Your task to perform on an android device: Open notification settings Image 0: 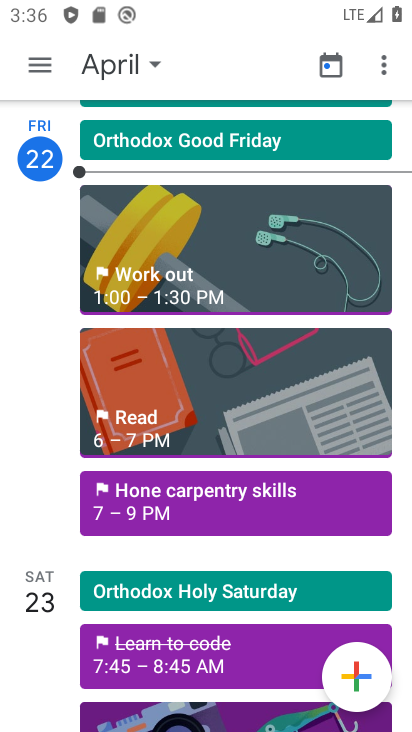
Step 0: press home button
Your task to perform on an android device: Open notification settings Image 1: 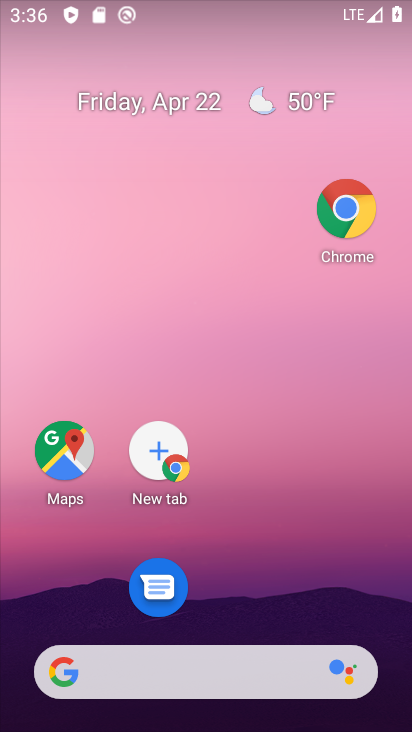
Step 1: drag from (233, 611) to (284, 50)
Your task to perform on an android device: Open notification settings Image 2: 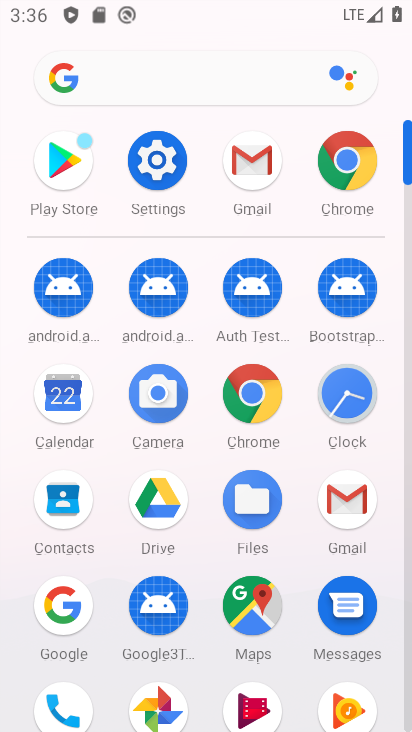
Step 2: click (155, 160)
Your task to perform on an android device: Open notification settings Image 3: 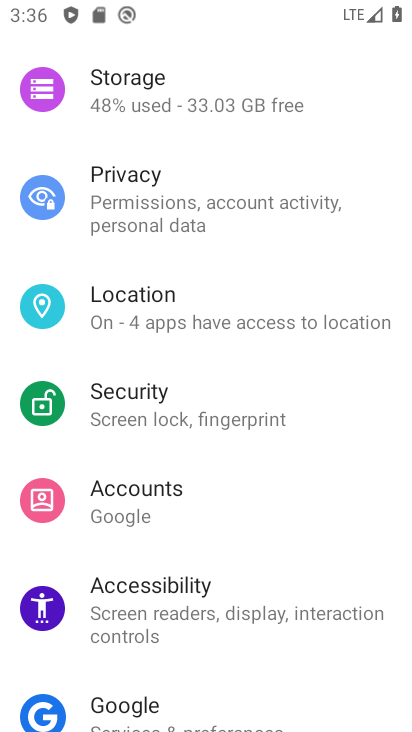
Step 3: drag from (147, 228) to (185, 624)
Your task to perform on an android device: Open notification settings Image 4: 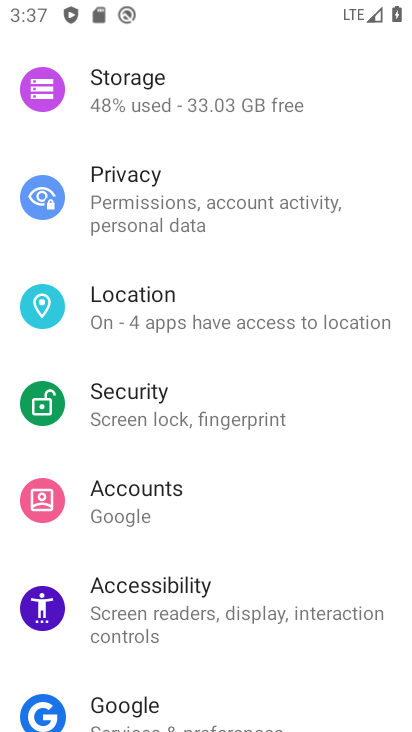
Step 4: drag from (194, 131) to (155, 621)
Your task to perform on an android device: Open notification settings Image 5: 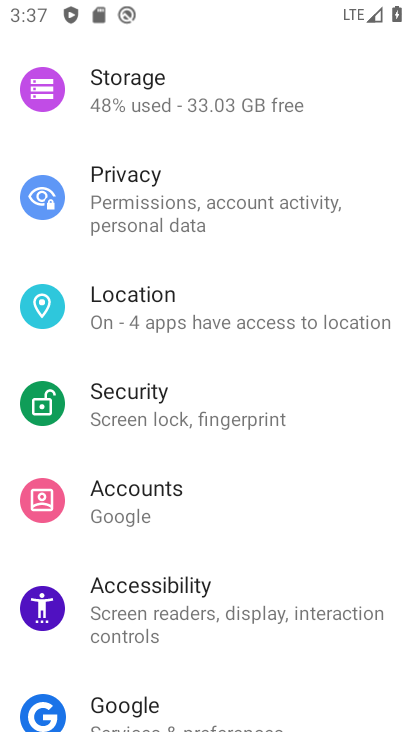
Step 5: drag from (256, 137) to (269, 604)
Your task to perform on an android device: Open notification settings Image 6: 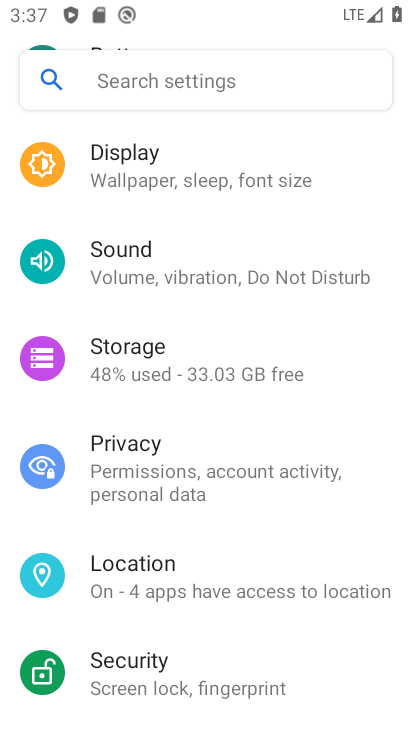
Step 6: drag from (218, 156) to (179, 675)
Your task to perform on an android device: Open notification settings Image 7: 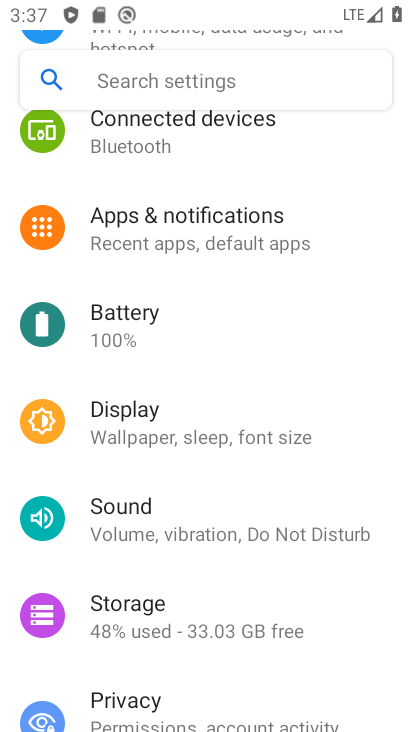
Step 7: click (156, 222)
Your task to perform on an android device: Open notification settings Image 8: 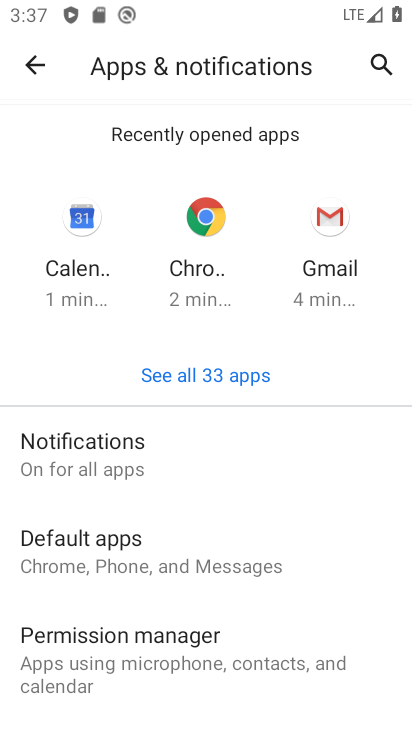
Step 8: task complete